Your task to perform on an android device: Search for nike dri-fit shirts on Nike Image 0: 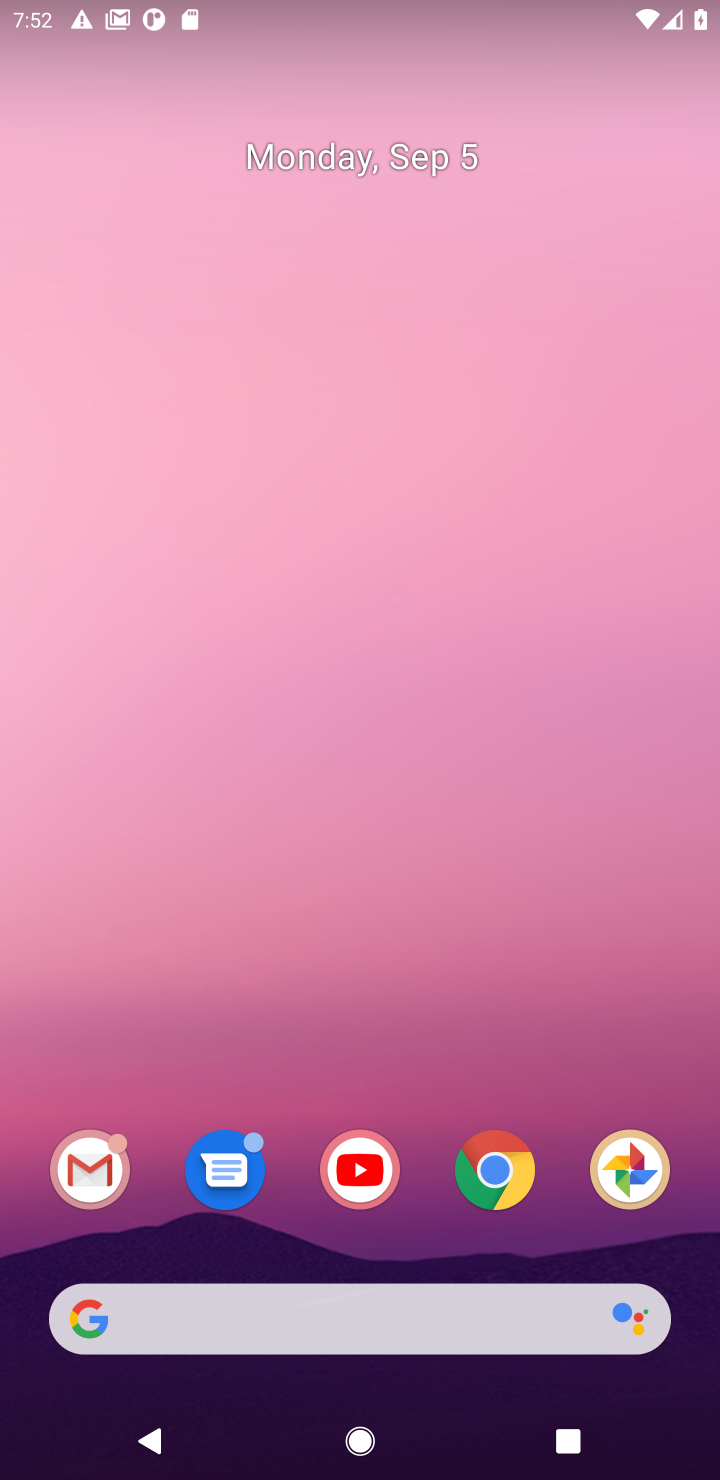
Step 0: click (494, 1156)
Your task to perform on an android device: Search for nike dri-fit shirts on Nike Image 1: 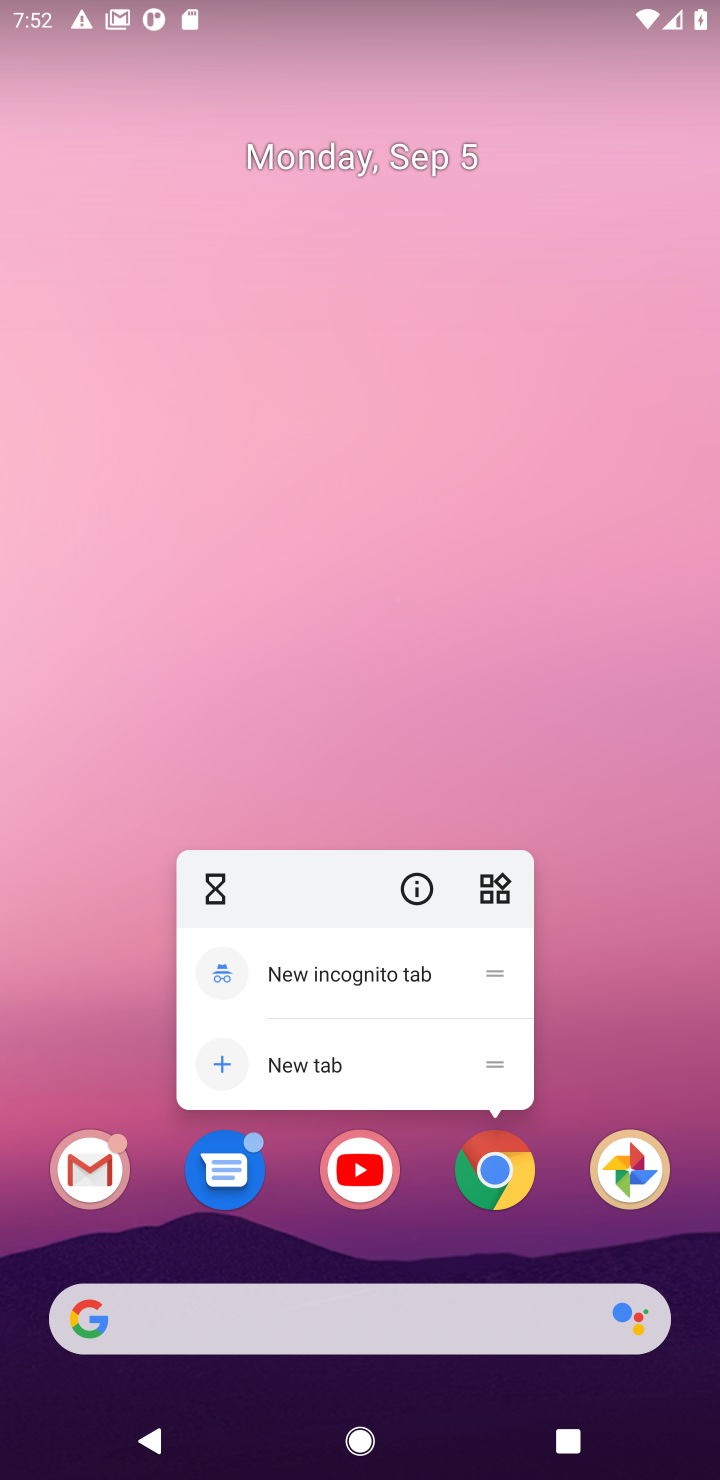
Step 1: click (488, 1156)
Your task to perform on an android device: Search for nike dri-fit shirts on Nike Image 2: 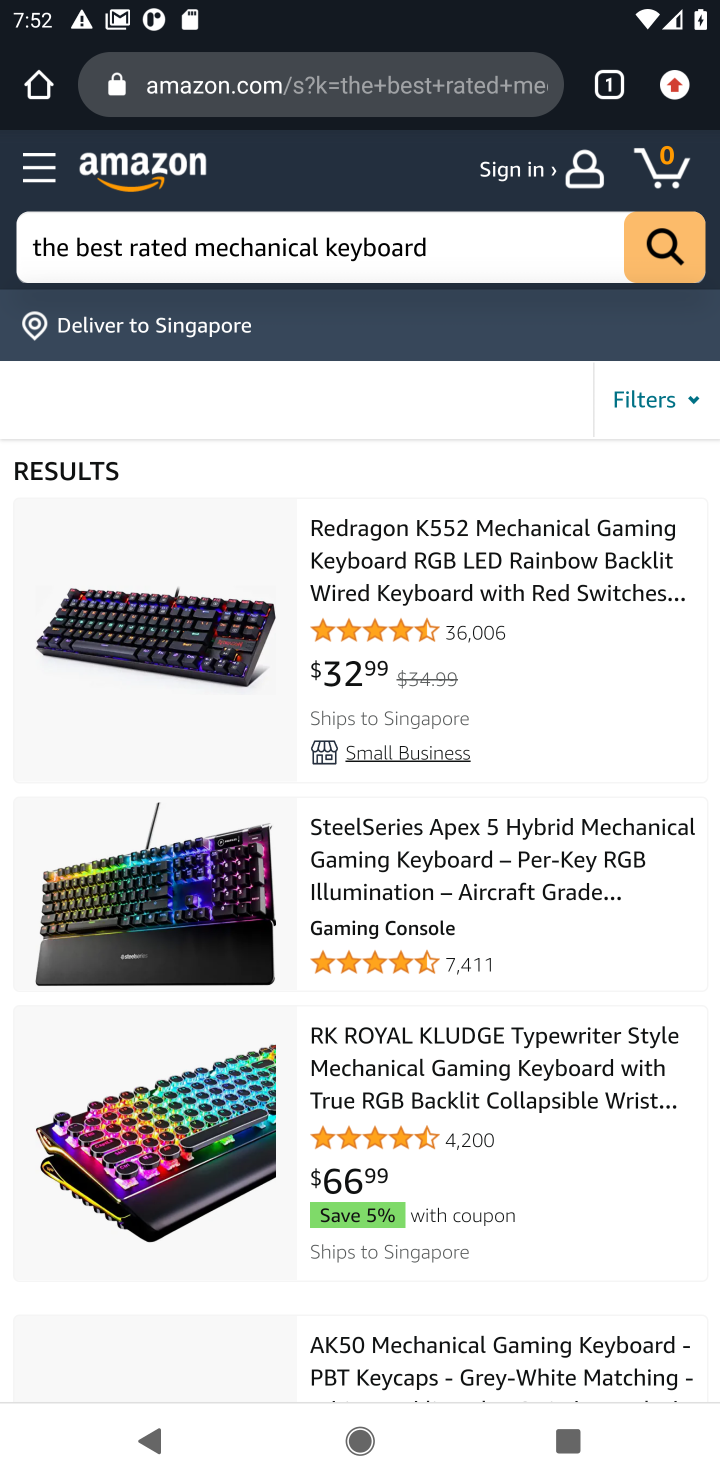
Step 2: click (395, 84)
Your task to perform on an android device: Search for nike dri-fit shirts on Nike Image 3: 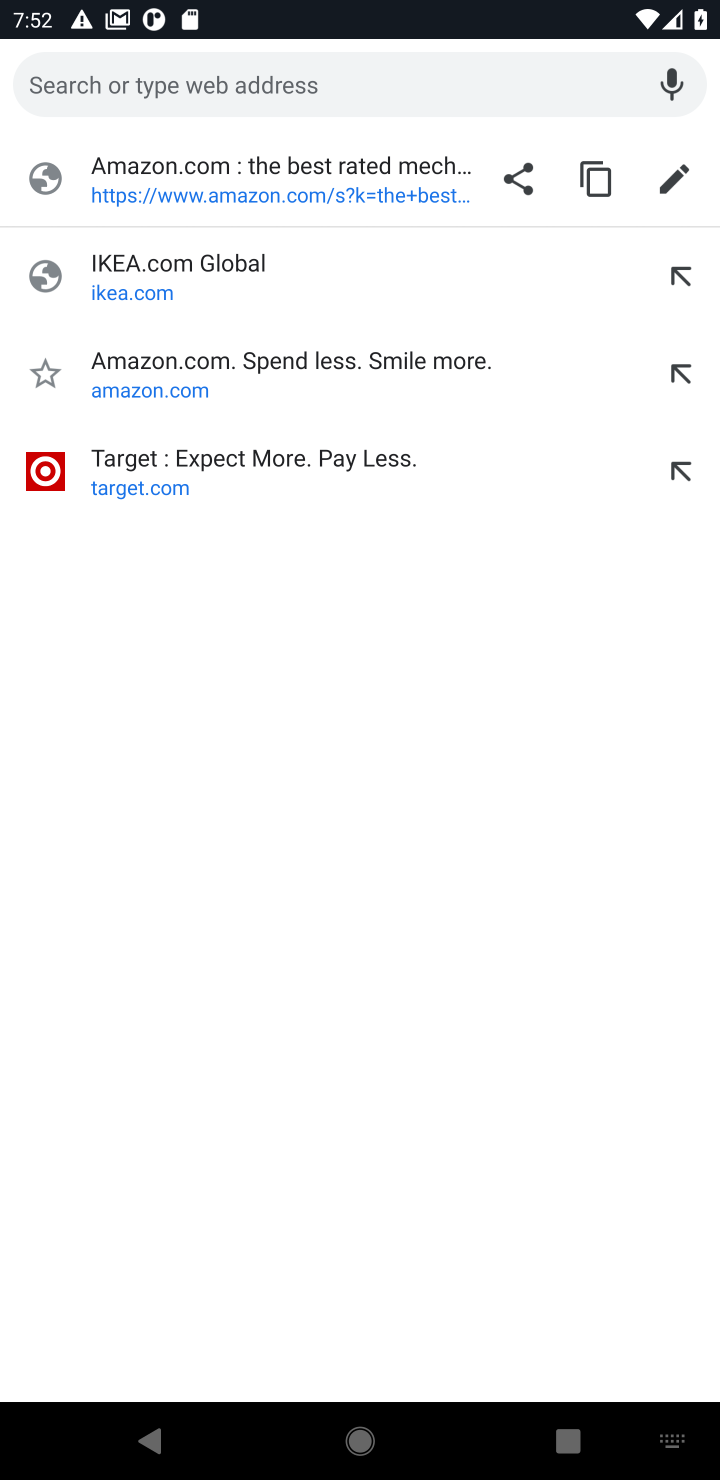
Step 3: type "Nike"
Your task to perform on an android device: Search for nike dri-fit shirts on Nike Image 4: 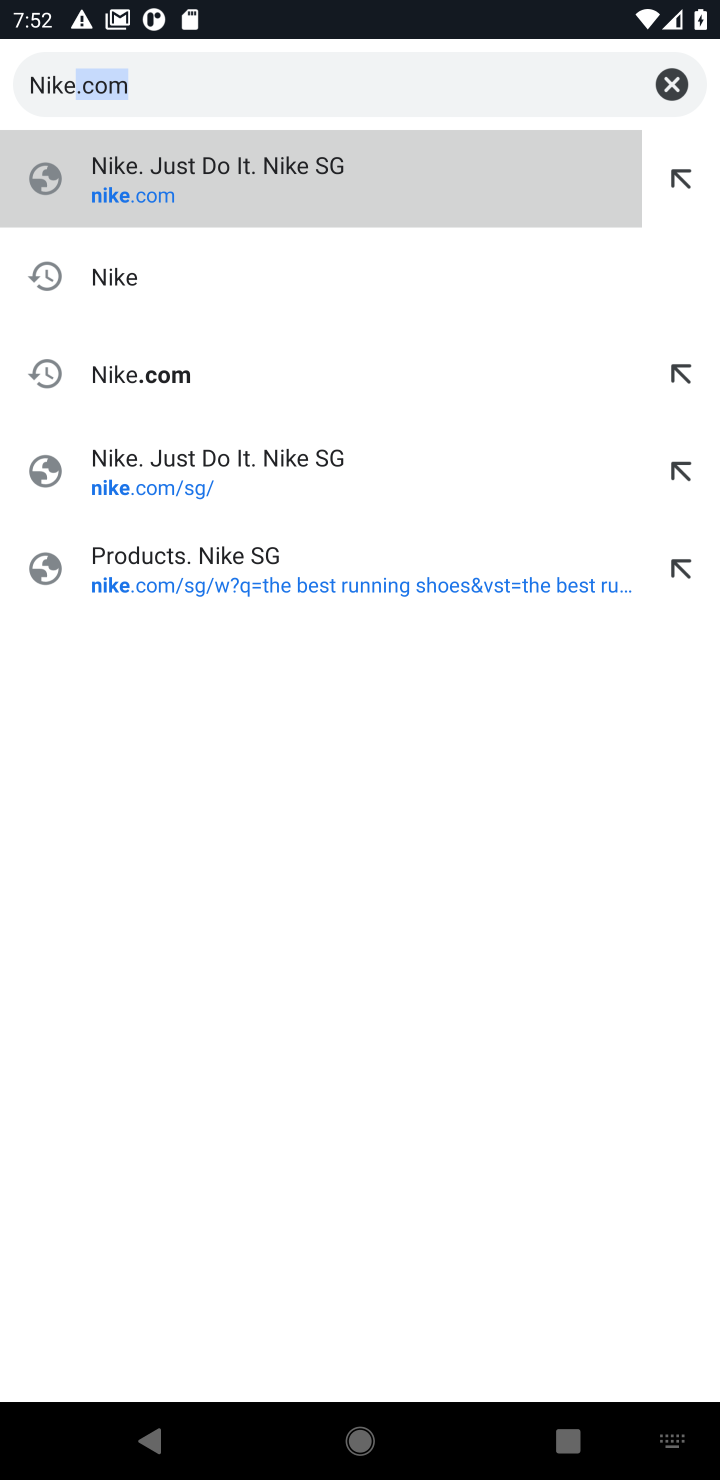
Step 4: click (160, 187)
Your task to perform on an android device: Search for nike dri-fit shirts on Nike Image 5: 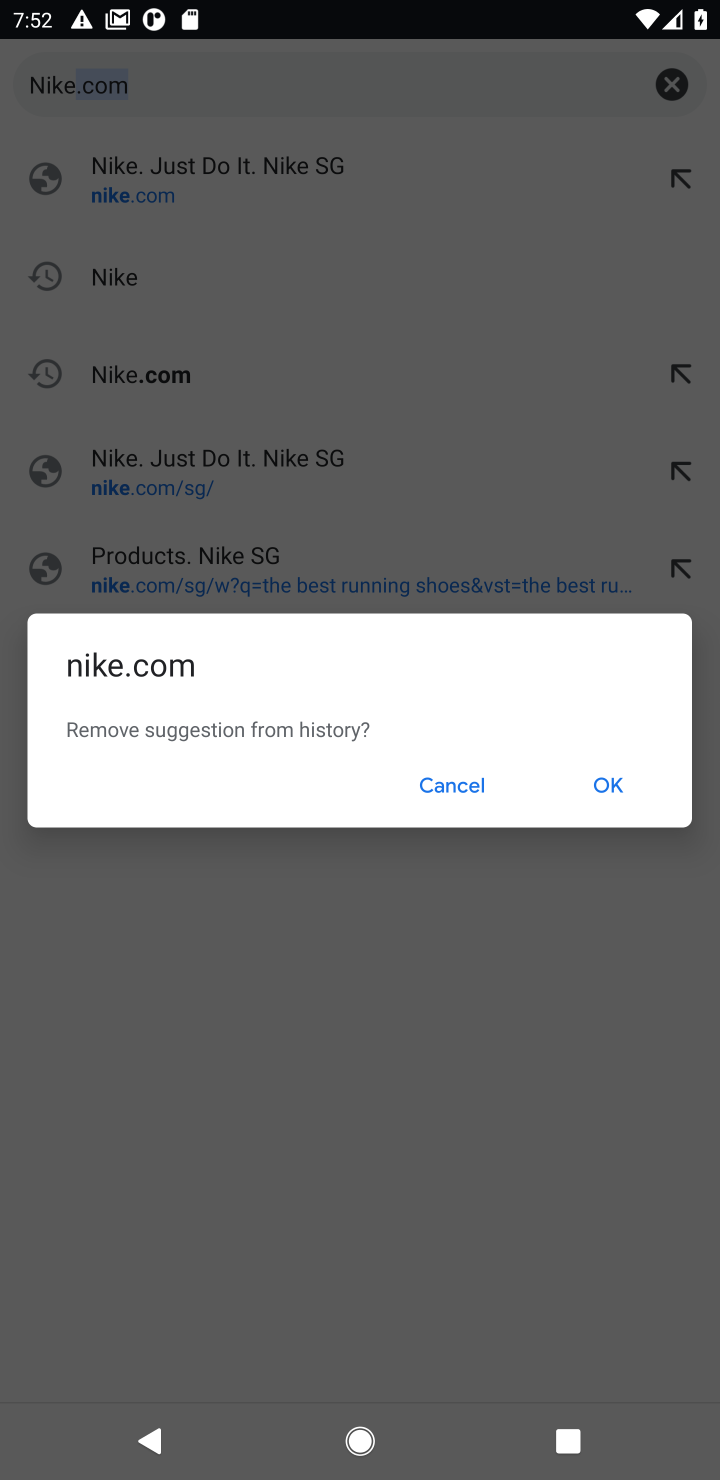
Step 5: click (459, 780)
Your task to perform on an android device: Search for nike dri-fit shirts on Nike Image 6: 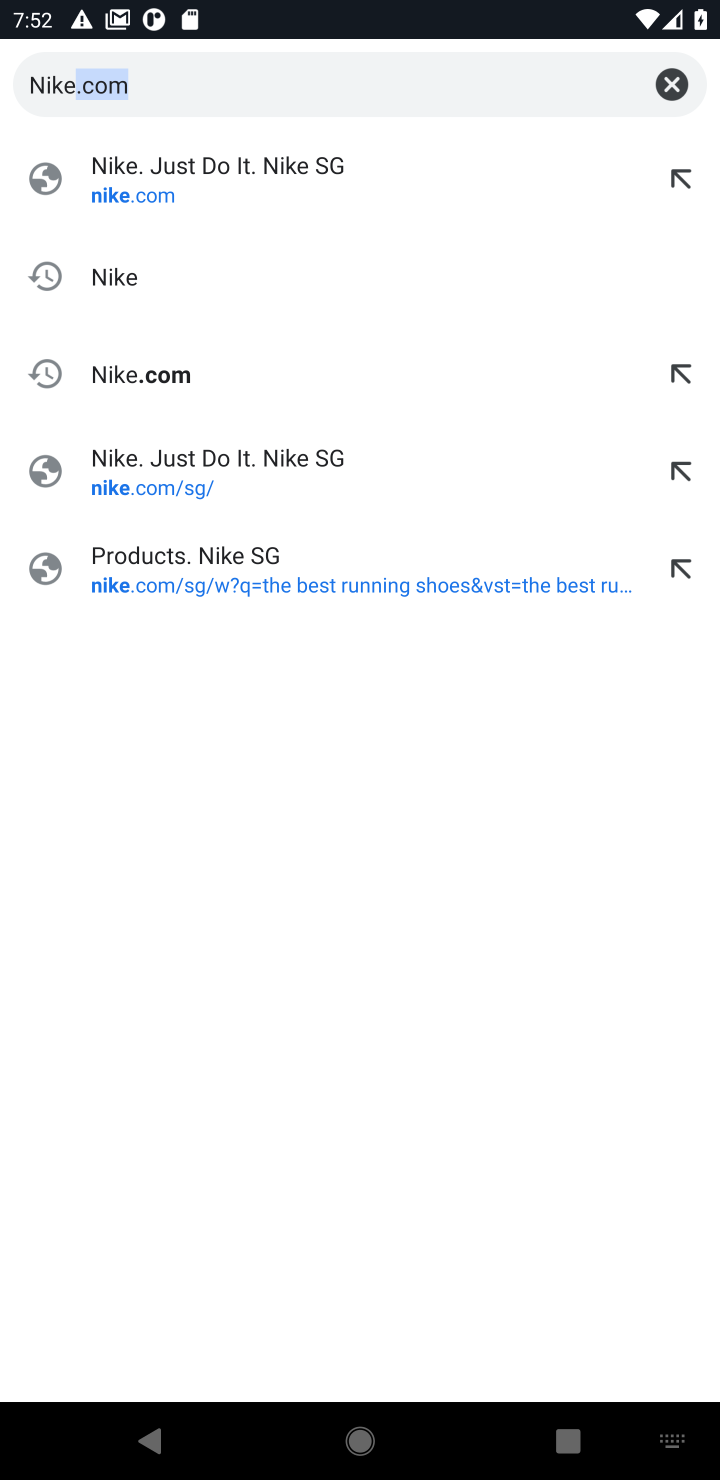
Step 6: click (255, 186)
Your task to perform on an android device: Search for nike dri-fit shirts on Nike Image 7: 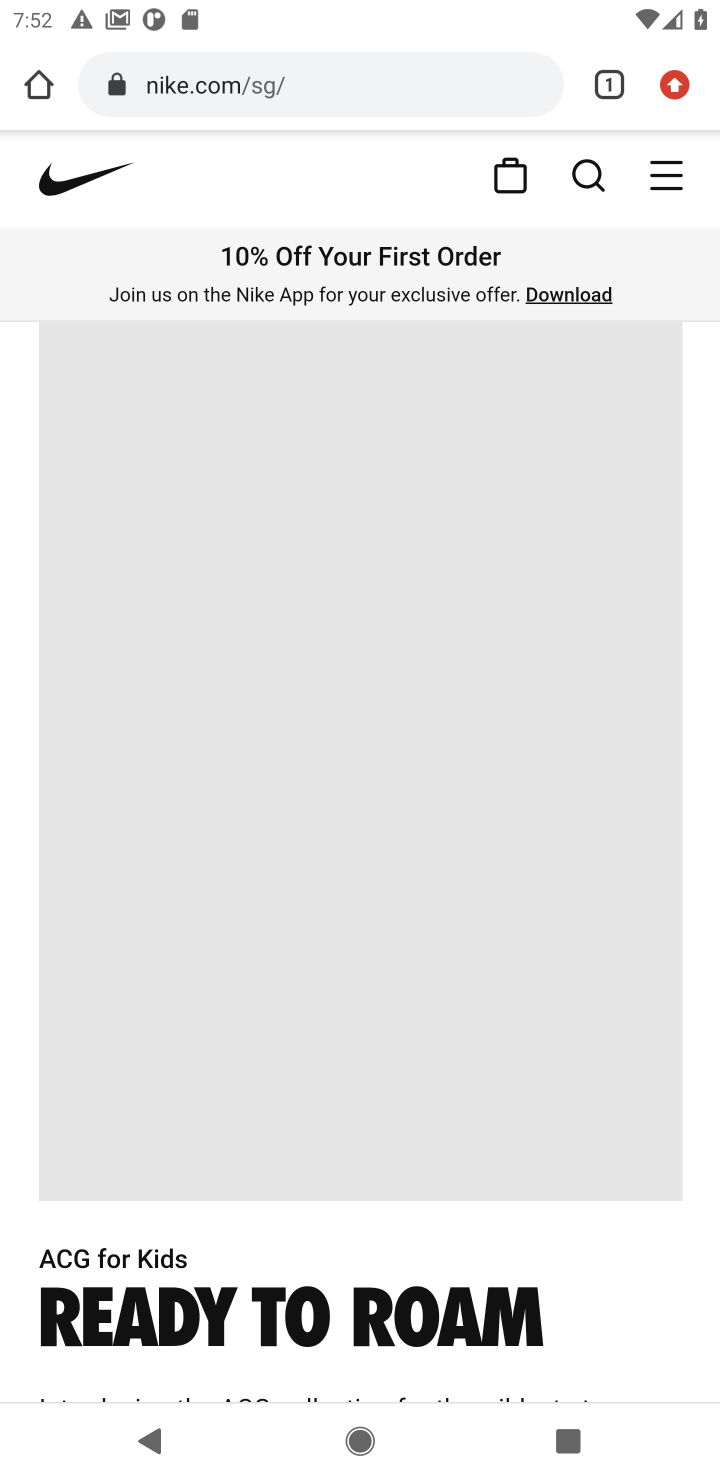
Step 7: click (582, 180)
Your task to perform on an android device: Search for nike dri-fit shirts on Nike Image 8: 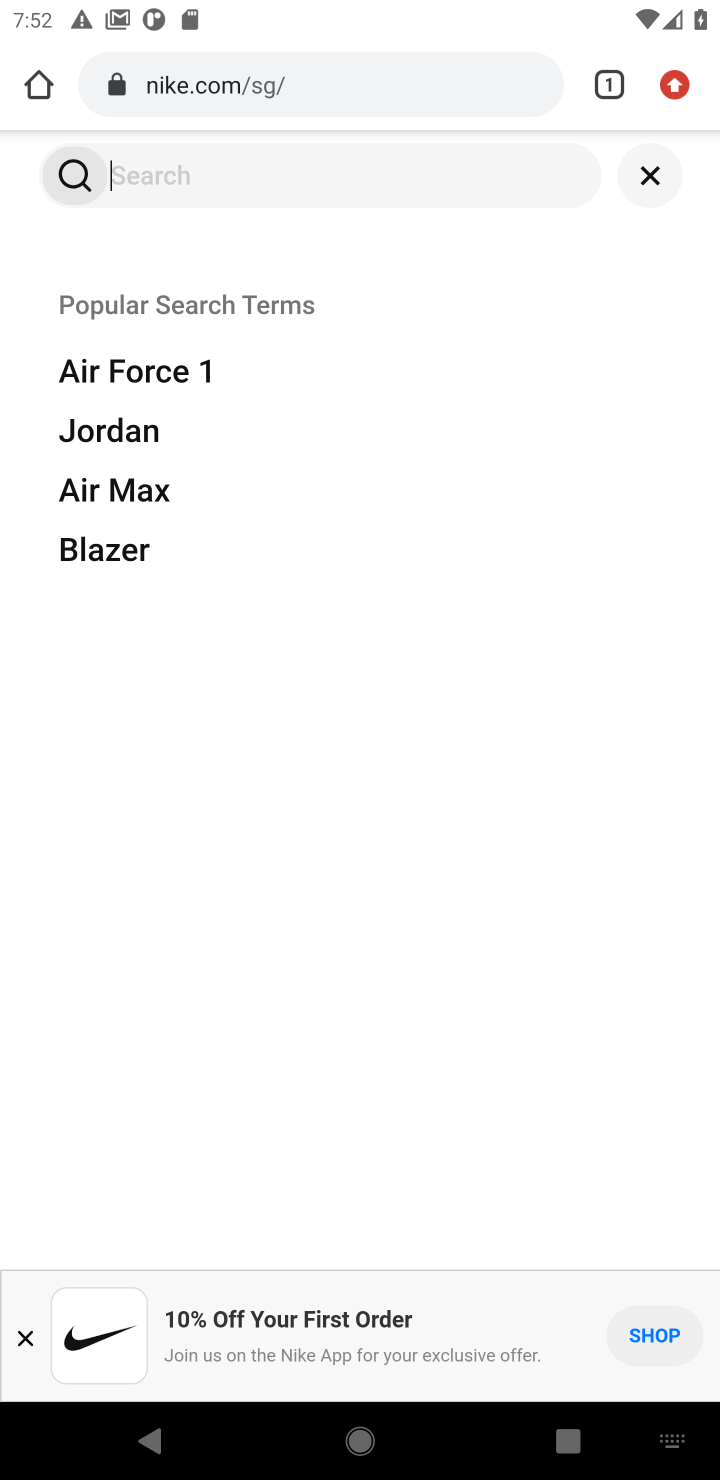
Step 8: type "nike dri-fit shirts"
Your task to perform on an android device: Search for nike dri-fit shirts on Nike Image 9: 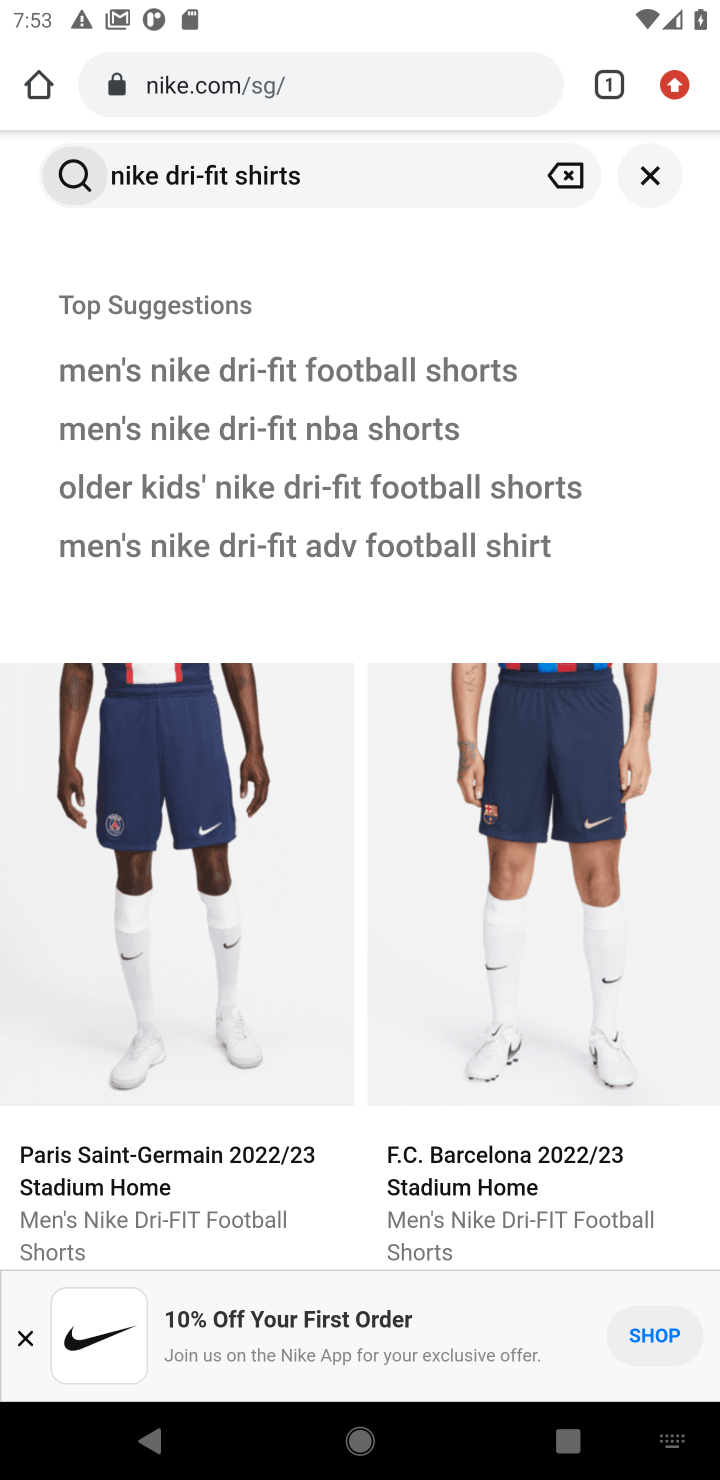
Step 9: click (64, 182)
Your task to perform on an android device: Search for nike dri-fit shirts on Nike Image 10: 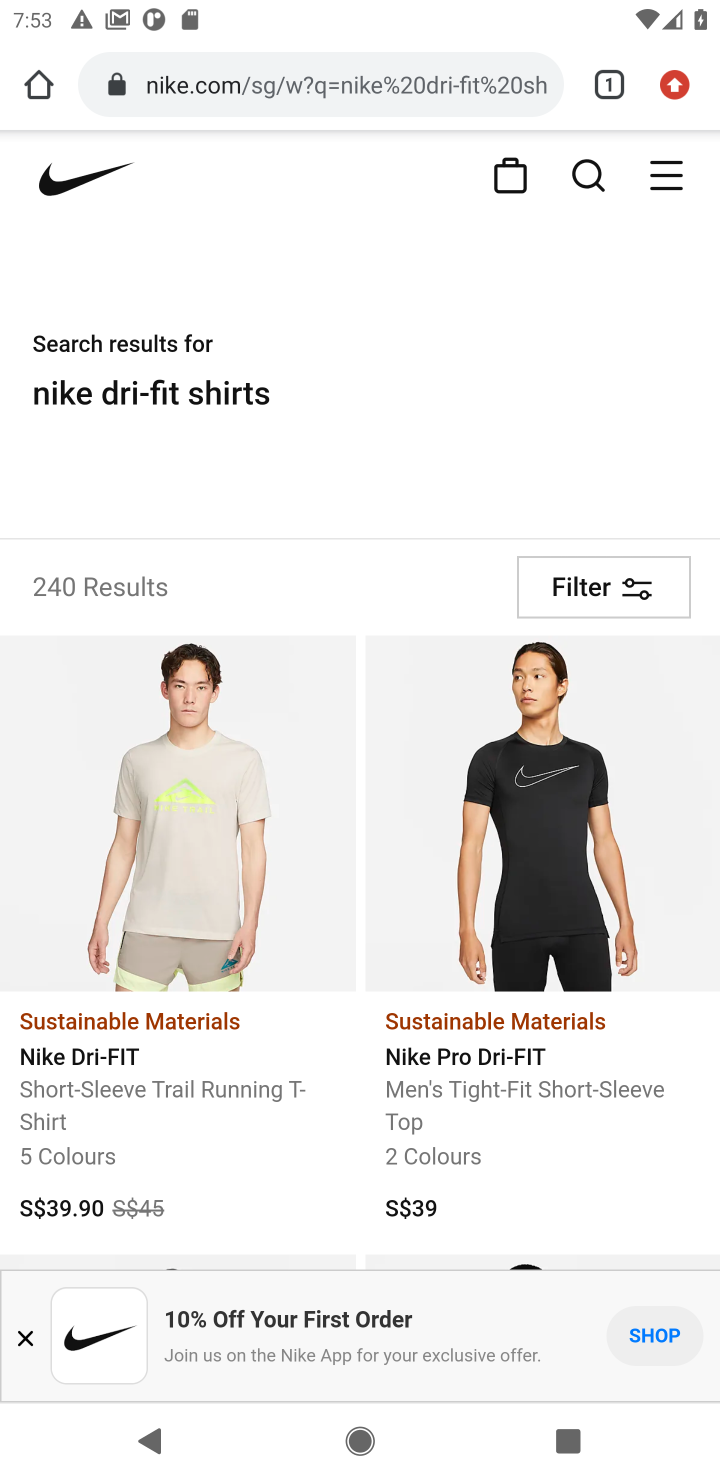
Step 10: task complete